Your task to perform on an android device: move an email to a new category in the gmail app Image 0: 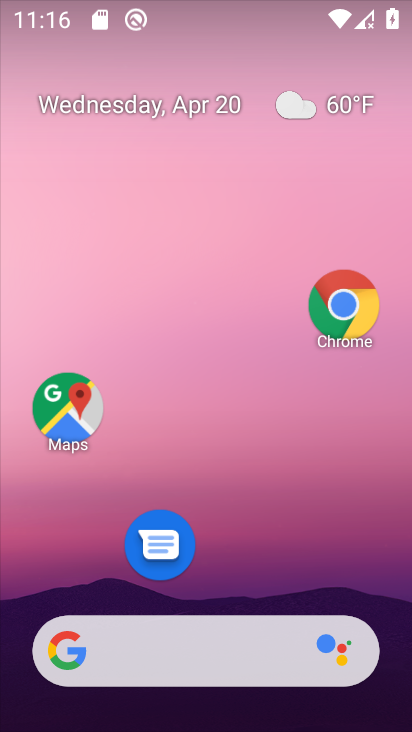
Step 0: click (271, 447)
Your task to perform on an android device: move an email to a new category in the gmail app Image 1: 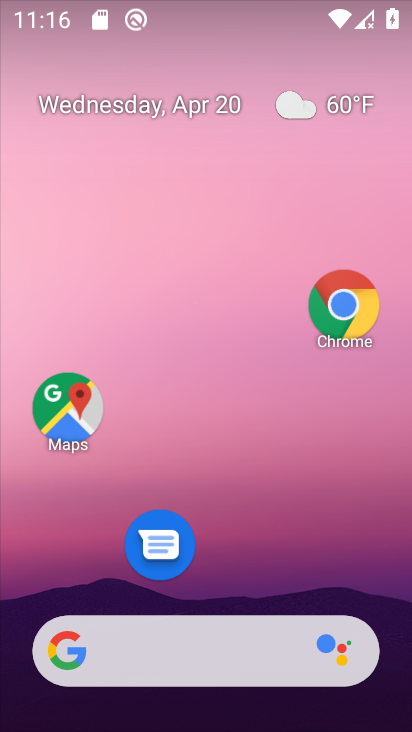
Step 1: drag from (259, 595) to (237, 294)
Your task to perform on an android device: move an email to a new category in the gmail app Image 2: 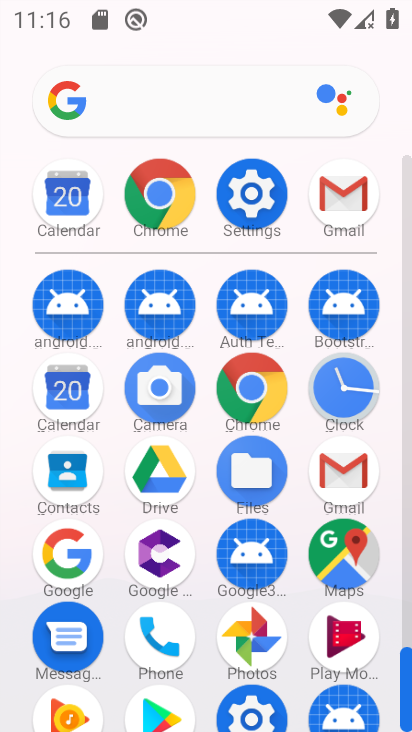
Step 2: click (345, 472)
Your task to perform on an android device: move an email to a new category in the gmail app Image 3: 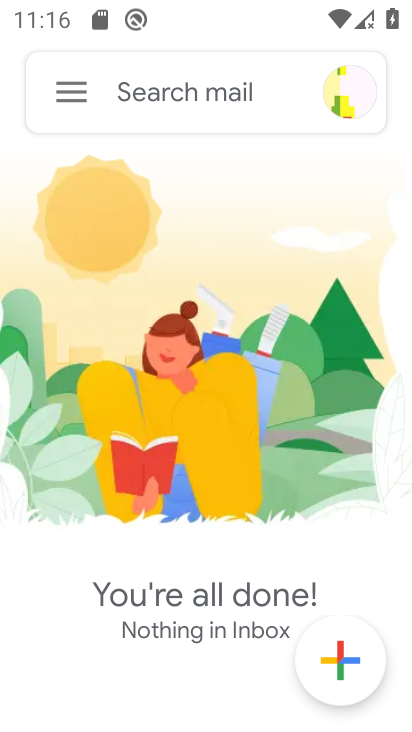
Step 3: click (71, 104)
Your task to perform on an android device: move an email to a new category in the gmail app Image 4: 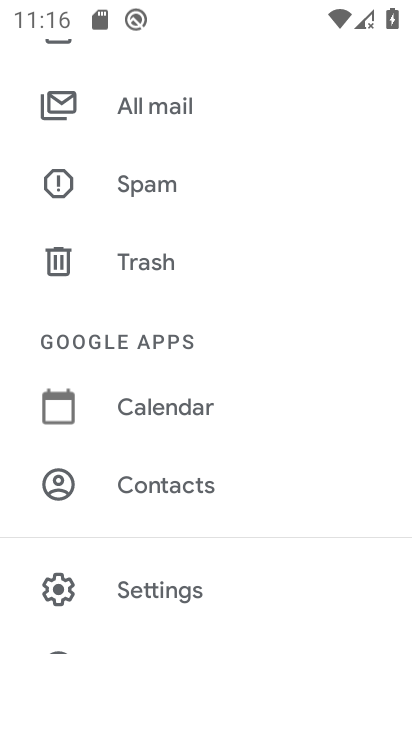
Step 4: click (137, 89)
Your task to perform on an android device: move an email to a new category in the gmail app Image 5: 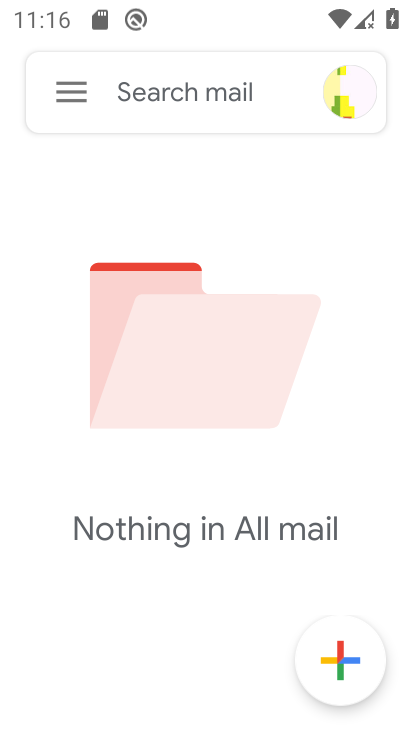
Step 5: task complete